Your task to perform on an android device: Go to Wikipedia Image 0: 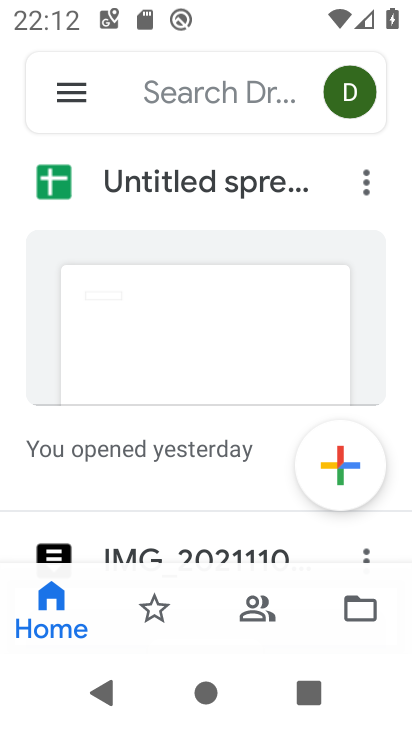
Step 0: press home button
Your task to perform on an android device: Go to Wikipedia Image 1: 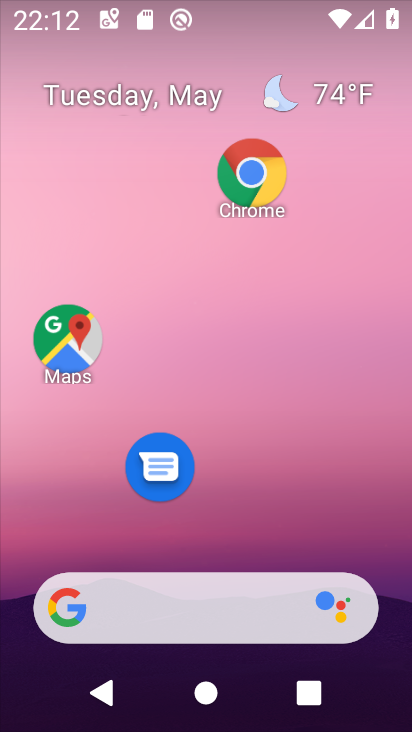
Step 1: drag from (365, 440) to (362, 137)
Your task to perform on an android device: Go to Wikipedia Image 2: 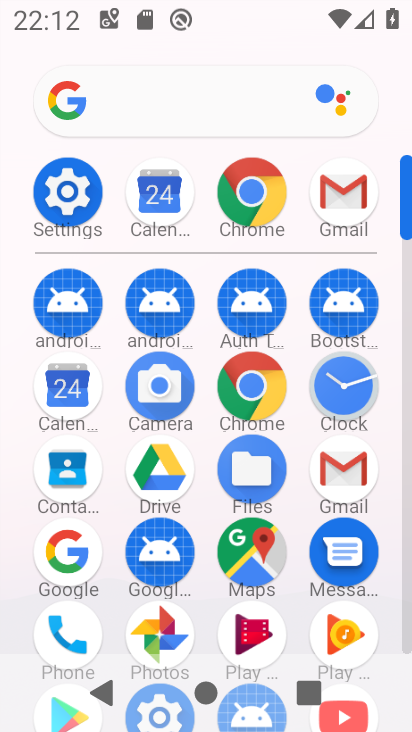
Step 2: click (259, 389)
Your task to perform on an android device: Go to Wikipedia Image 3: 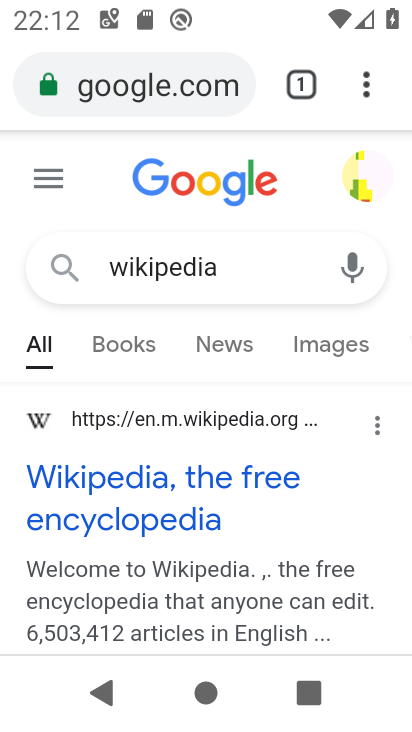
Step 3: click (178, 90)
Your task to perform on an android device: Go to Wikipedia Image 4: 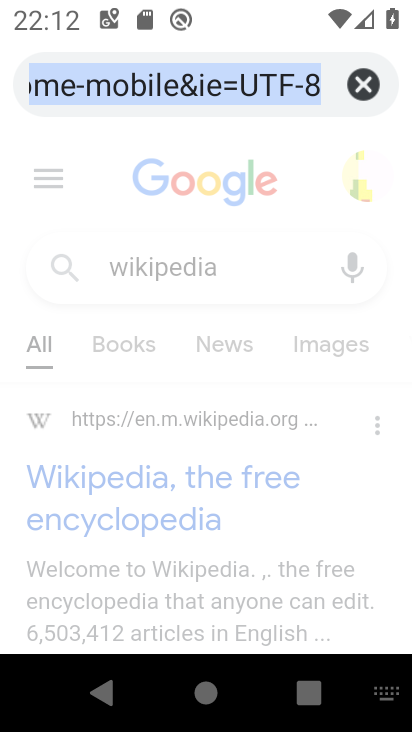
Step 4: click (358, 88)
Your task to perform on an android device: Go to Wikipedia Image 5: 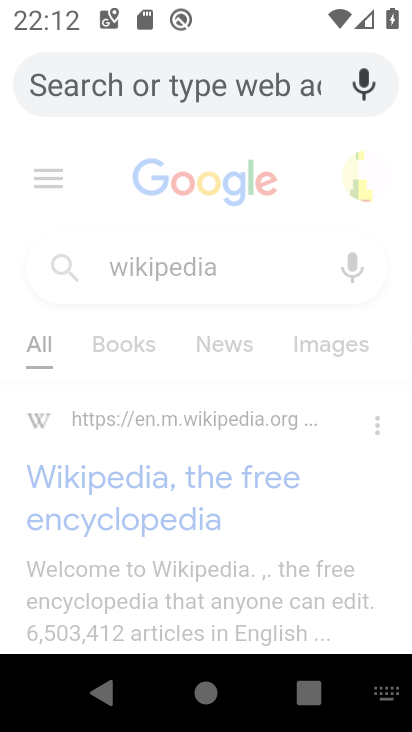
Step 5: type "wikipedia"
Your task to perform on an android device: Go to Wikipedia Image 6: 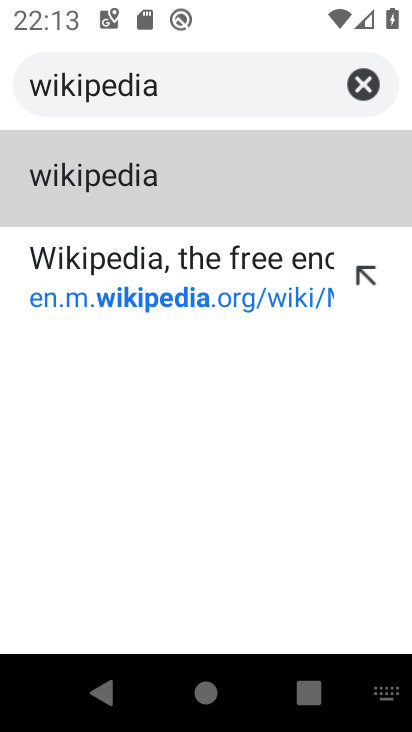
Step 6: click (105, 171)
Your task to perform on an android device: Go to Wikipedia Image 7: 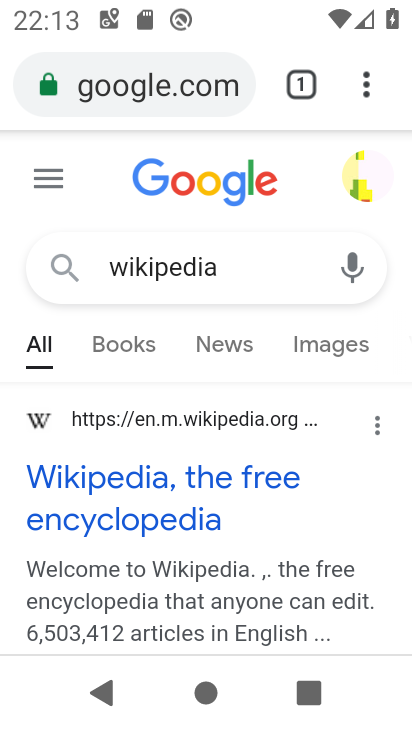
Step 7: task complete